Your task to perform on an android device: open sync settings in chrome Image 0: 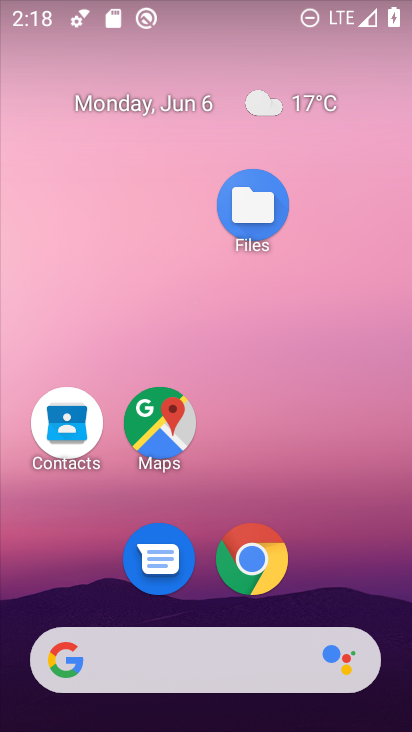
Step 0: drag from (200, 662) to (231, 197)
Your task to perform on an android device: open sync settings in chrome Image 1: 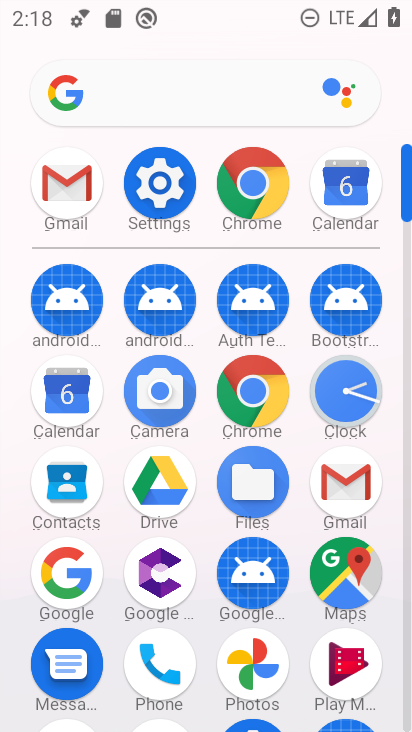
Step 1: click (259, 204)
Your task to perform on an android device: open sync settings in chrome Image 2: 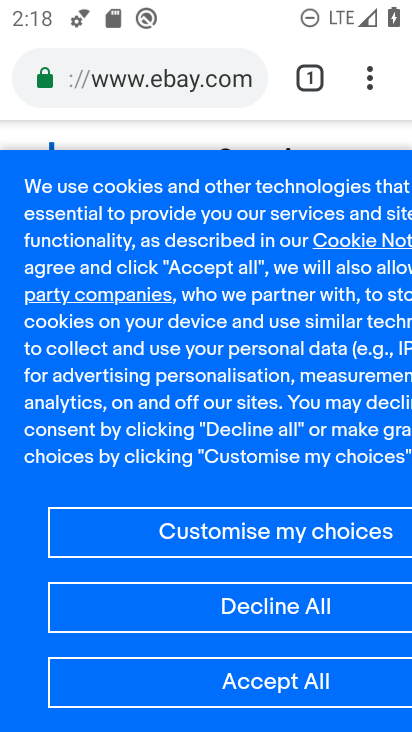
Step 2: click (376, 89)
Your task to perform on an android device: open sync settings in chrome Image 3: 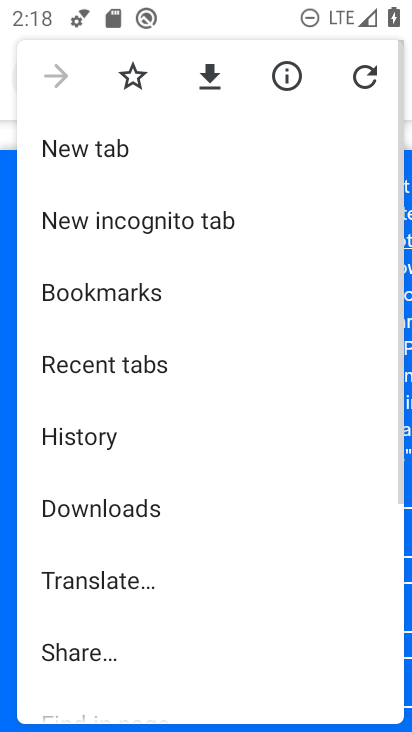
Step 3: drag from (105, 649) to (161, 380)
Your task to perform on an android device: open sync settings in chrome Image 4: 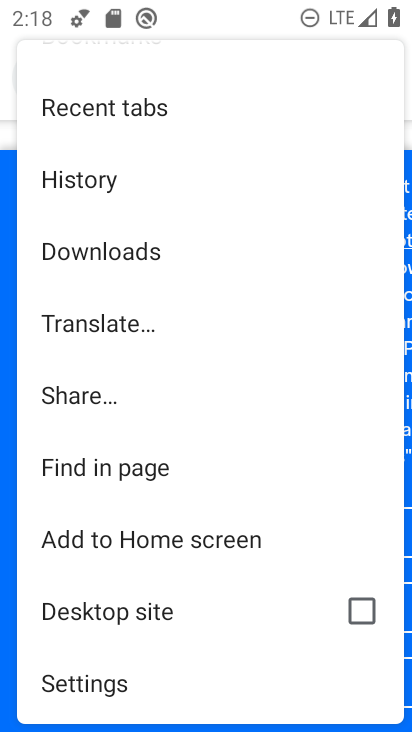
Step 4: click (89, 682)
Your task to perform on an android device: open sync settings in chrome Image 5: 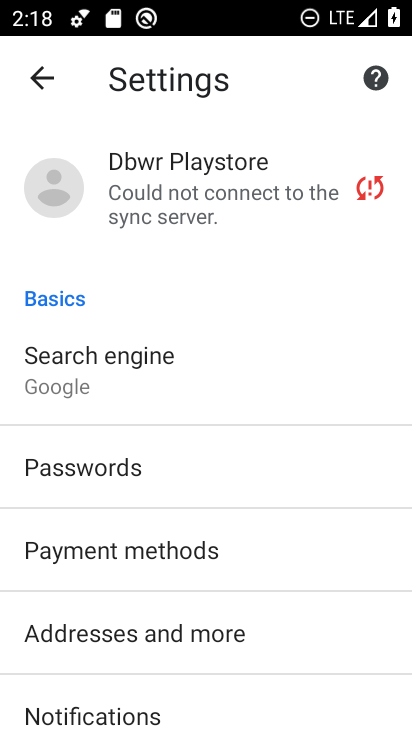
Step 5: click (244, 207)
Your task to perform on an android device: open sync settings in chrome Image 6: 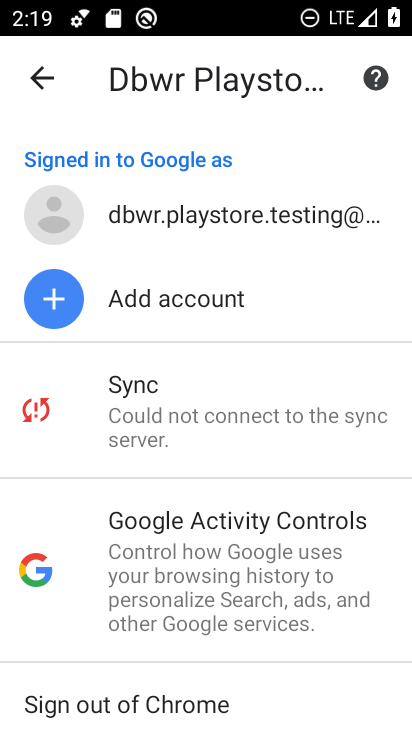
Step 6: click (269, 222)
Your task to perform on an android device: open sync settings in chrome Image 7: 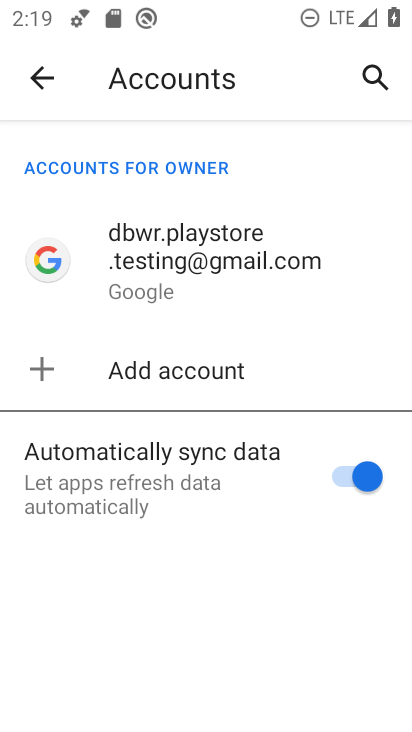
Step 7: task complete